Your task to perform on an android device: Turn off the flashlight Image 0: 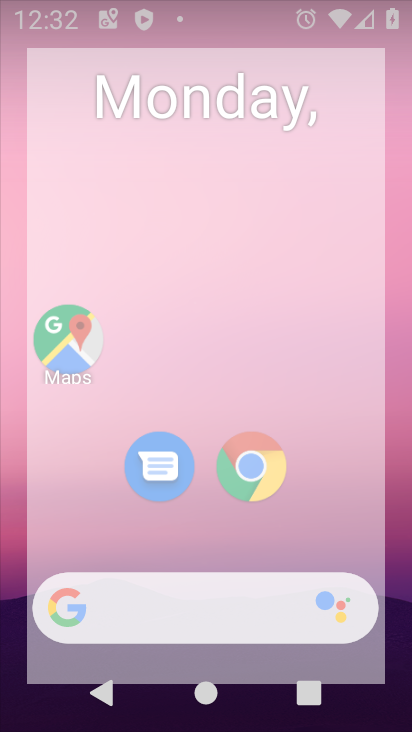
Step 0: drag from (380, 616) to (220, 105)
Your task to perform on an android device: Turn off the flashlight Image 1: 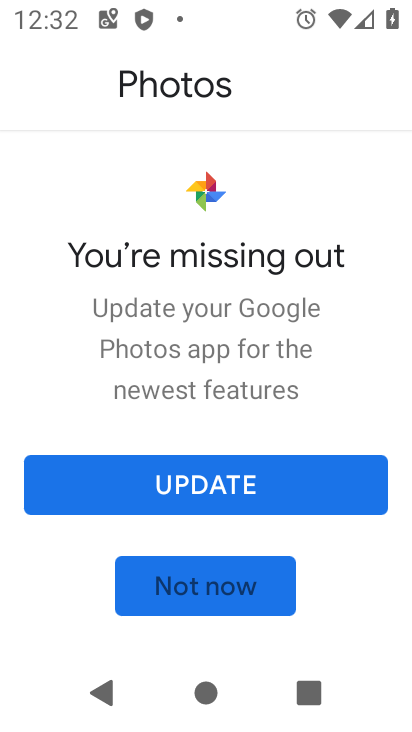
Step 1: press home button
Your task to perform on an android device: Turn off the flashlight Image 2: 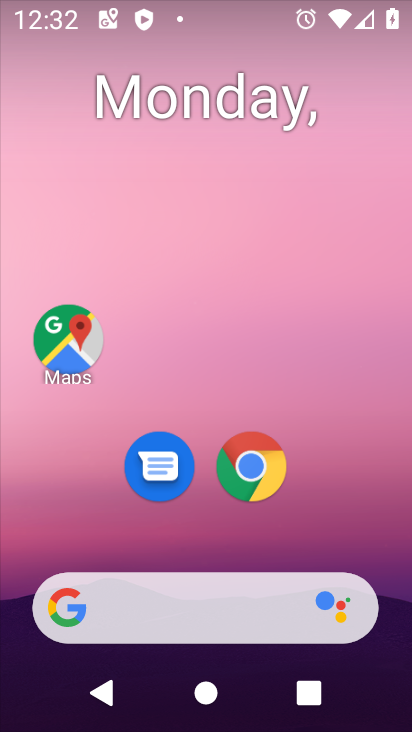
Step 2: drag from (388, 638) to (205, 59)
Your task to perform on an android device: Turn off the flashlight Image 3: 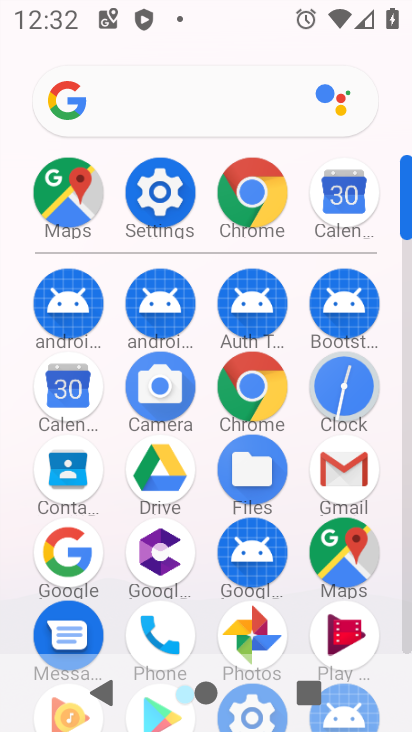
Step 3: drag from (207, 638) to (183, 336)
Your task to perform on an android device: Turn off the flashlight Image 4: 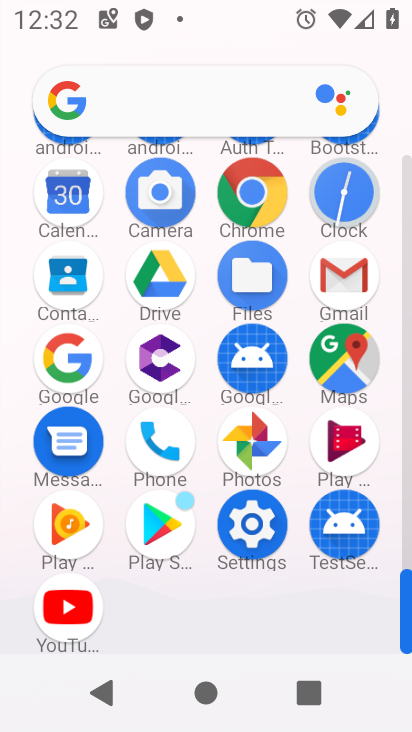
Step 4: click (64, 633)
Your task to perform on an android device: Turn off the flashlight Image 5: 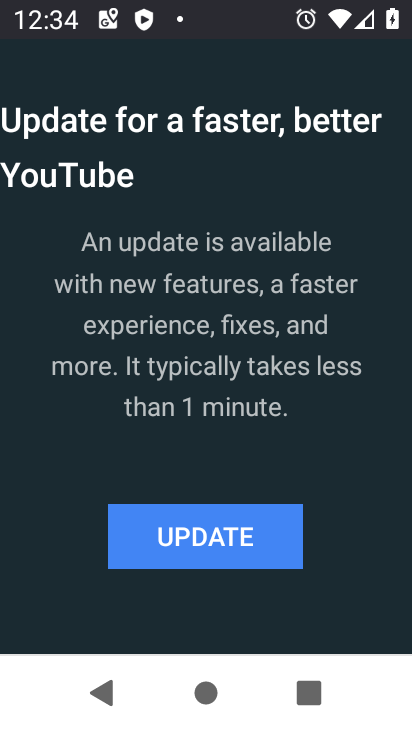
Step 5: press back button
Your task to perform on an android device: Turn off the flashlight Image 6: 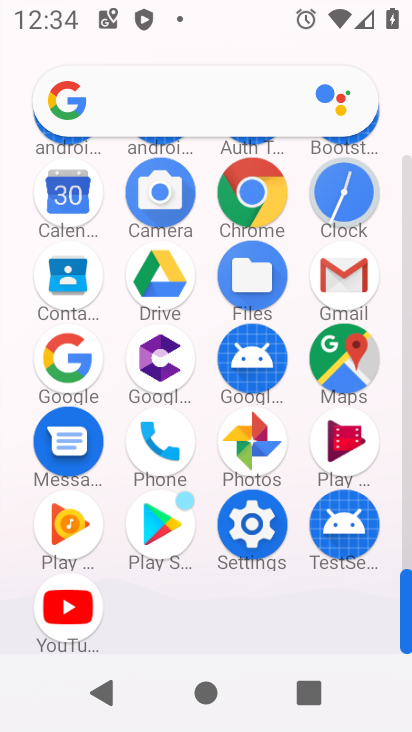
Step 6: click (249, 522)
Your task to perform on an android device: Turn off the flashlight Image 7: 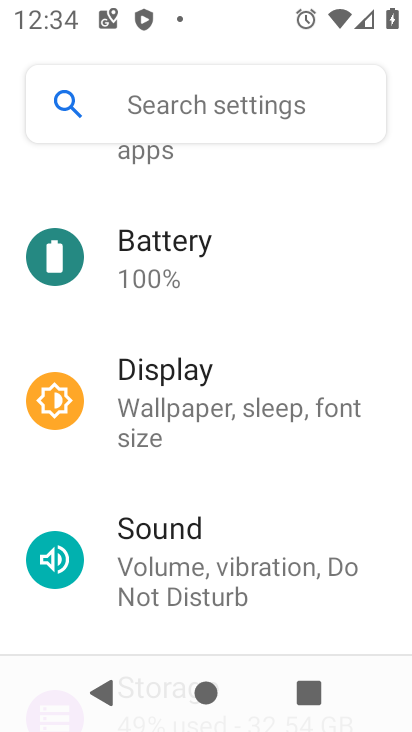
Step 7: task complete